Your task to perform on an android device: delete browsing data in the chrome app Image 0: 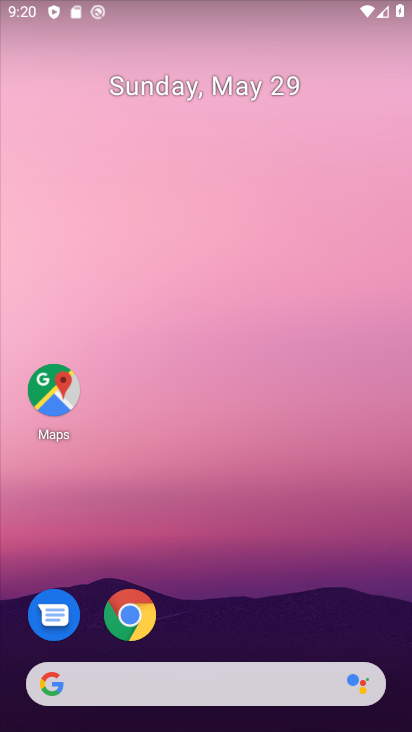
Step 0: click (129, 628)
Your task to perform on an android device: delete browsing data in the chrome app Image 1: 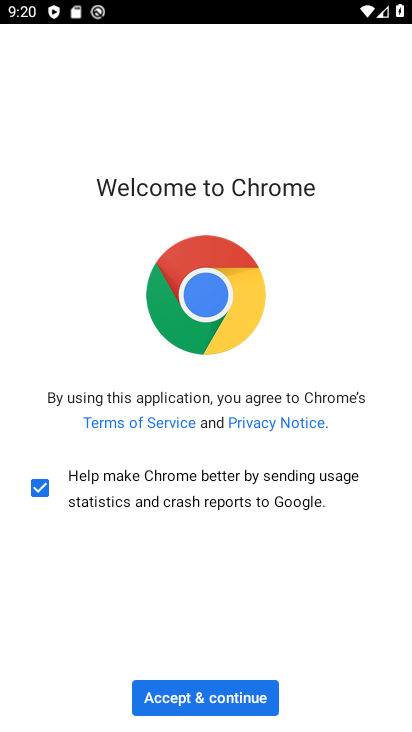
Step 1: click (204, 688)
Your task to perform on an android device: delete browsing data in the chrome app Image 2: 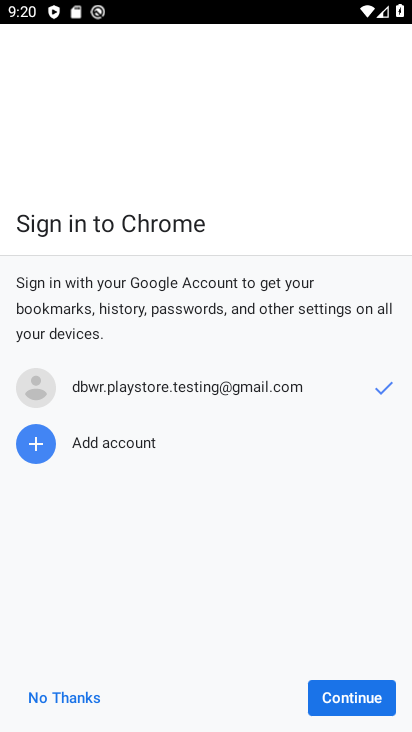
Step 2: click (337, 690)
Your task to perform on an android device: delete browsing data in the chrome app Image 3: 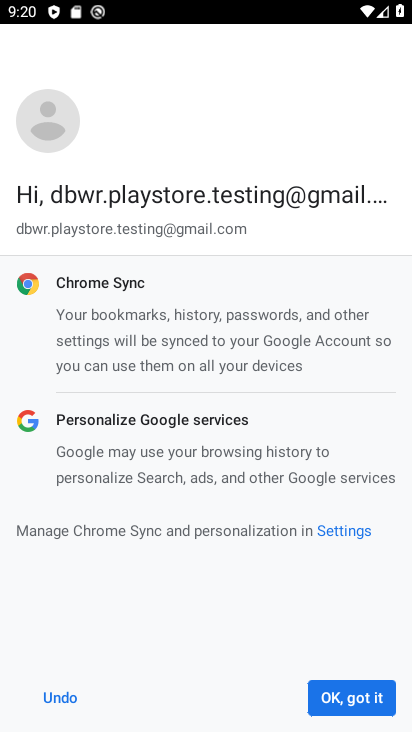
Step 3: click (342, 706)
Your task to perform on an android device: delete browsing data in the chrome app Image 4: 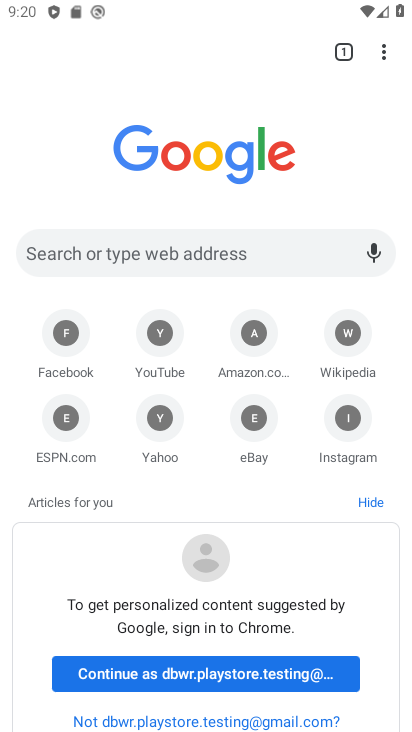
Step 4: click (386, 51)
Your task to perform on an android device: delete browsing data in the chrome app Image 5: 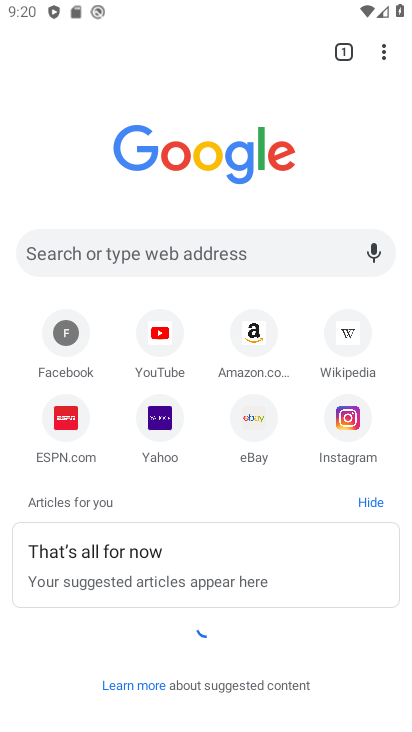
Step 5: click (378, 51)
Your task to perform on an android device: delete browsing data in the chrome app Image 6: 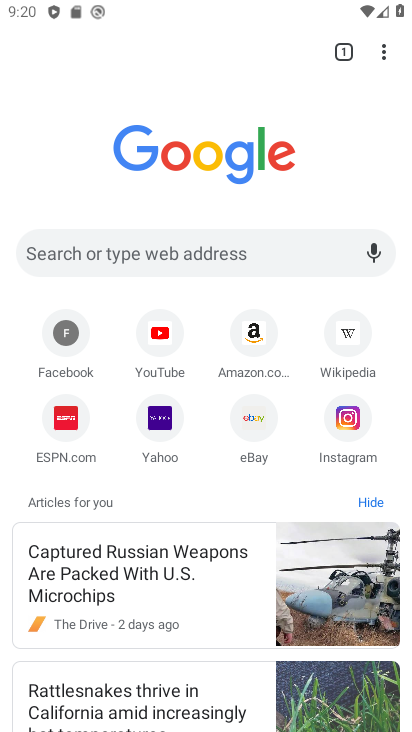
Step 6: drag from (380, 50) to (201, 284)
Your task to perform on an android device: delete browsing data in the chrome app Image 7: 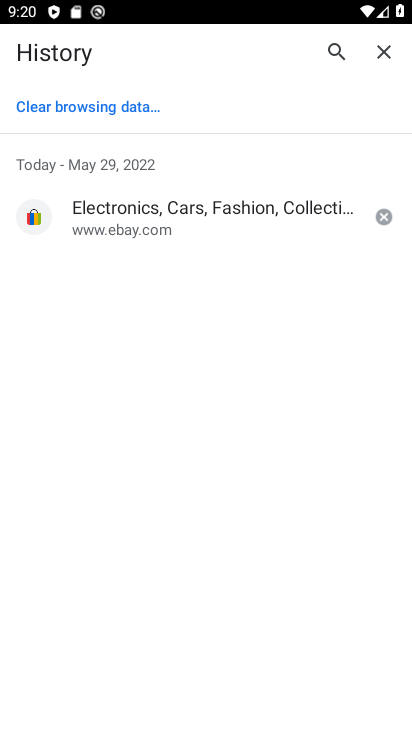
Step 7: click (120, 101)
Your task to perform on an android device: delete browsing data in the chrome app Image 8: 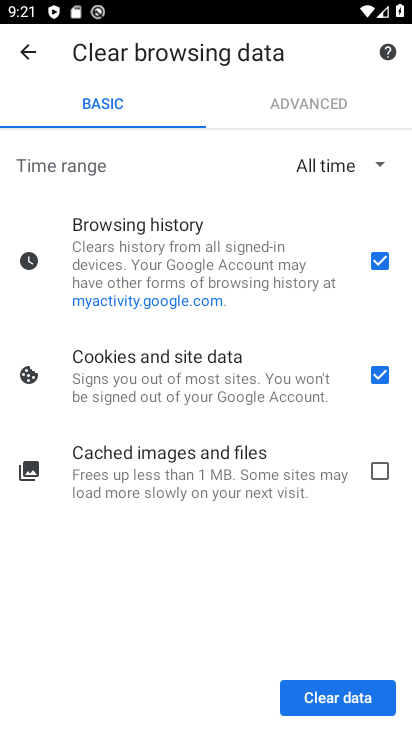
Step 8: click (347, 686)
Your task to perform on an android device: delete browsing data in the chrome app Image 9: 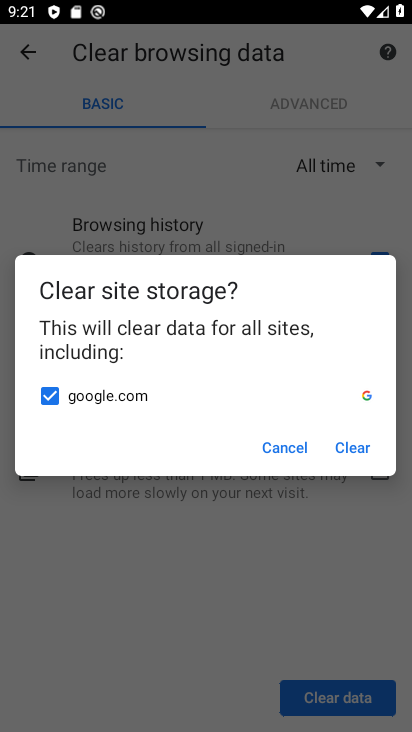
Step 9: click (341, 676)
Your task to perform on an android device: delete browsing data in the chrome app Image 10: 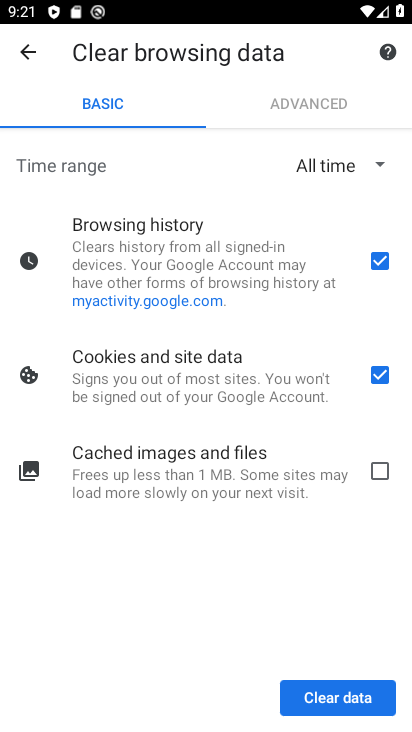
Step 10: click (366, 690)
Your task to perform on an android device: delete browsing data in the chrome app Image 11: 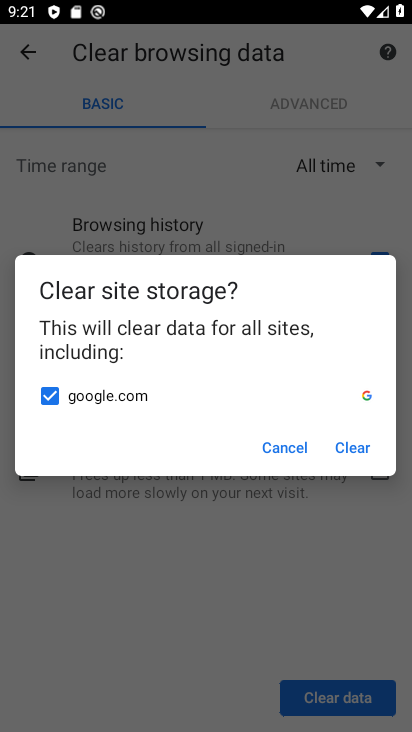
Step 11: click (348, 446)
Your task to perform on an android device: delete browsing data in the chrome app Image 12: 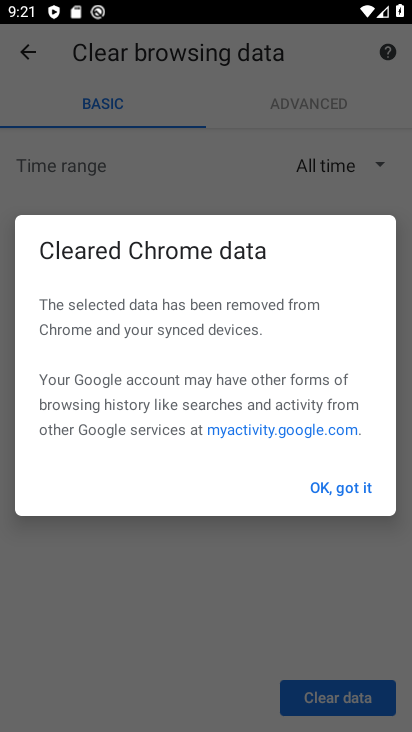
Step 12: task complete